Your task to perform on an android device: open the mobile data screen to see how much data has been used Image 0: 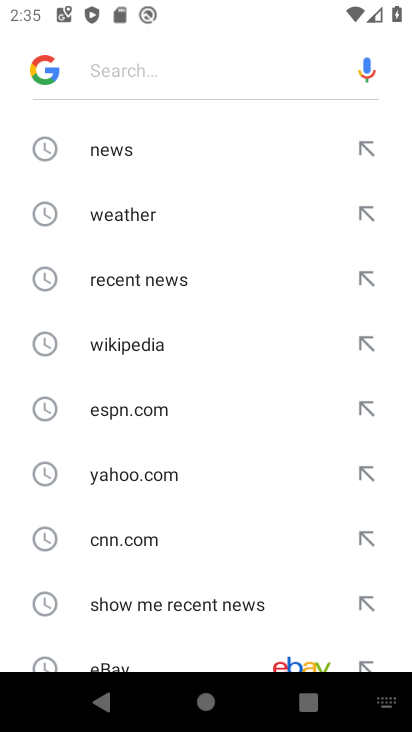
Step 0: press back button
Your task to perform on an android device: open the mobile data screen to see how much data has been used Image 1: 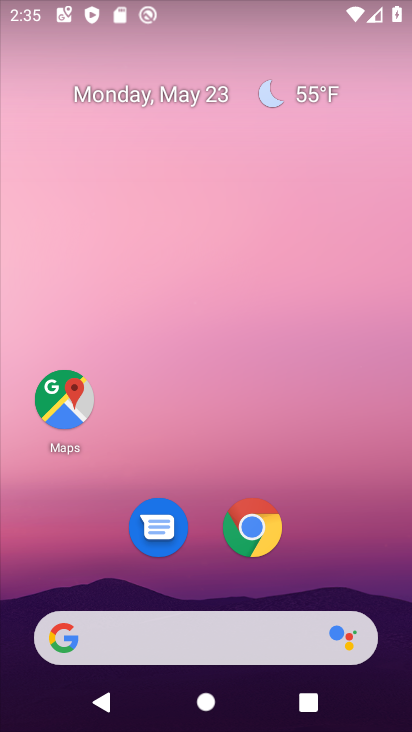
Step 1: drag from (296, 525) to (250, 39)
Your task to perform on an android device: open the mobile data screen to see how much data has been used Image 2: 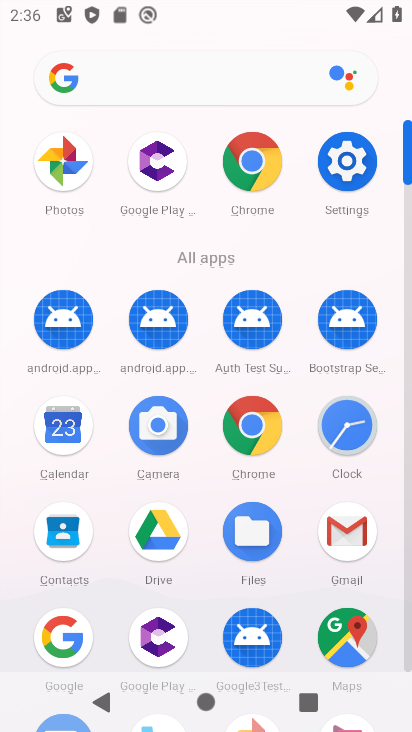
Step 2: click (349, 161)
Your task to perform on an android device: open the mobile data screen to see how much data has been used Image 3: 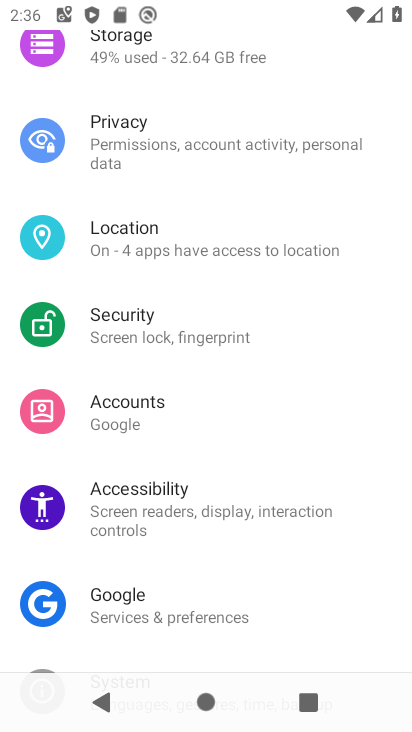
Step 3: drag from (327, 160) to (274, 576)
Your task to perform on an android device: open the mobile data screen to see how much data has been used Image 4: 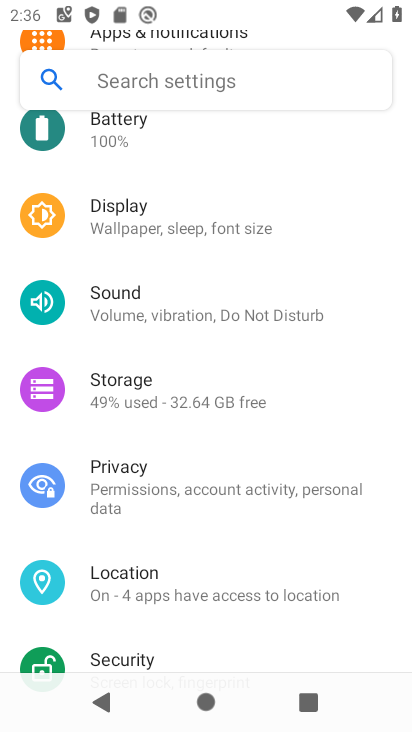
Step 4: drag from (269, 220) to (267, 618)
Your task to perform on an android device: open the mobile data screen to see how much data has been used Image 5: 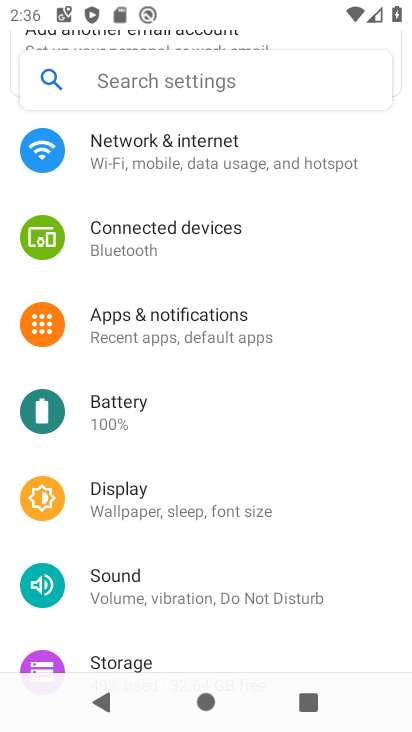
Step 5: drag from (275, 255) to (276, 636)
Your task to perform on an android device: open the mobile data screen to see how much data has been used Image 6: 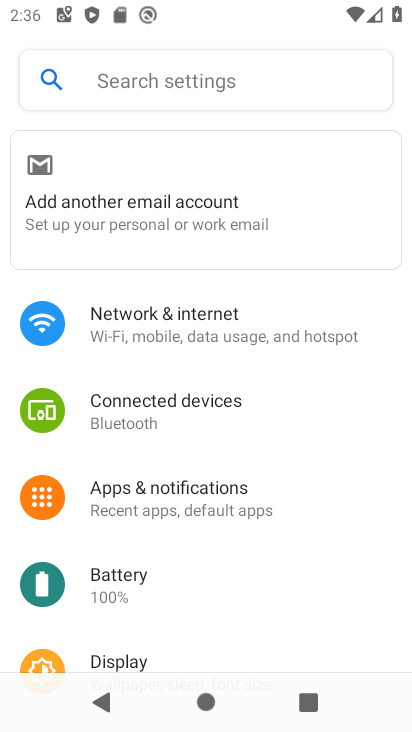
Step 6: click (217, 329)
Your task to perform on an android device: open the mobile data screen to see how much data has been used Image 7: 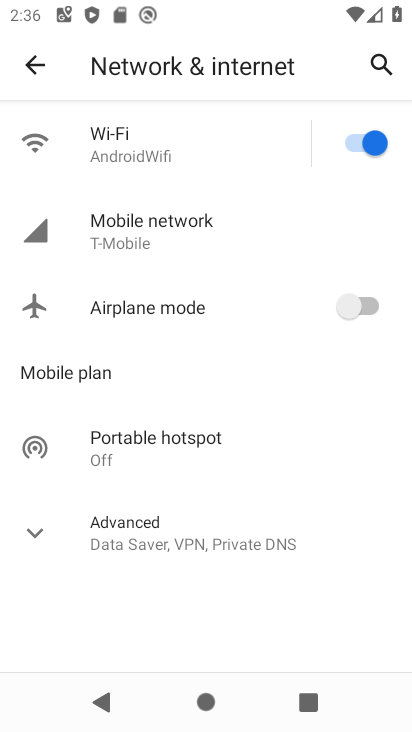
Step 7: click (141, 235)
Your task to perform on an android device: open the mobile data screen to see how much data has been used Image 8: 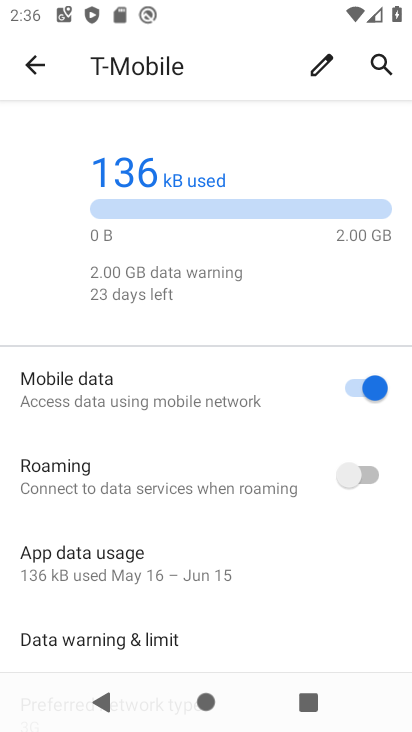
Step 8: task complete